Your task to perform on an android device: open app "Pluto TV - Live TV and Movies" Image 0: 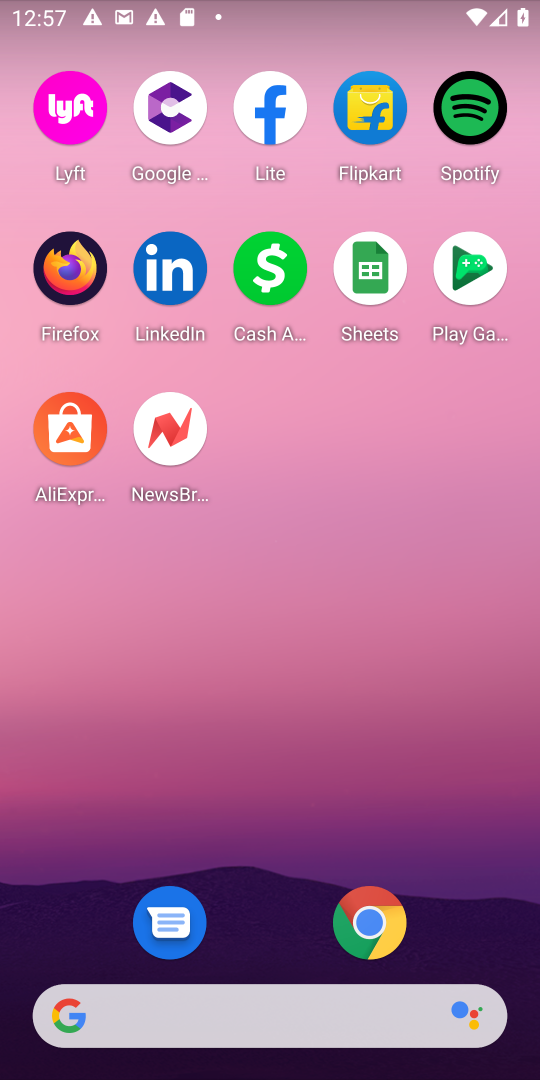
Step 0: drag from (247, 758) to (336, 65)
Your task to perform on an android device: open app "Pluto TV - Live TV and Movies" Image 1: 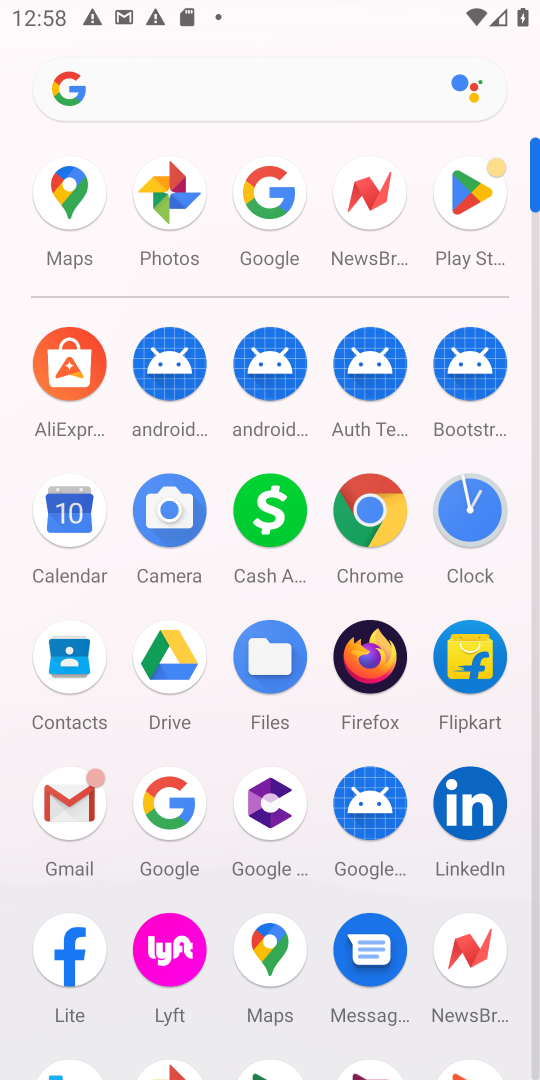
Step 1: click (458, 193)
Your task to perform on an android device: open app "Pluto TV - Live TV and Movies" Image 2: 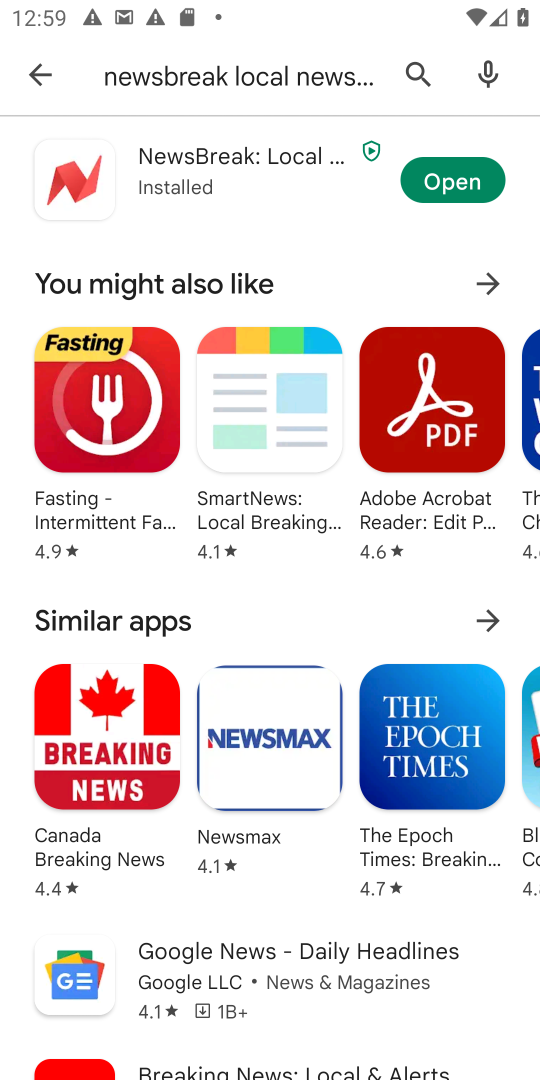
Step 2: click (43, 73)
Your task to perform on an android device: open app "Pluto TV - Live TV and Movies" Image 3: 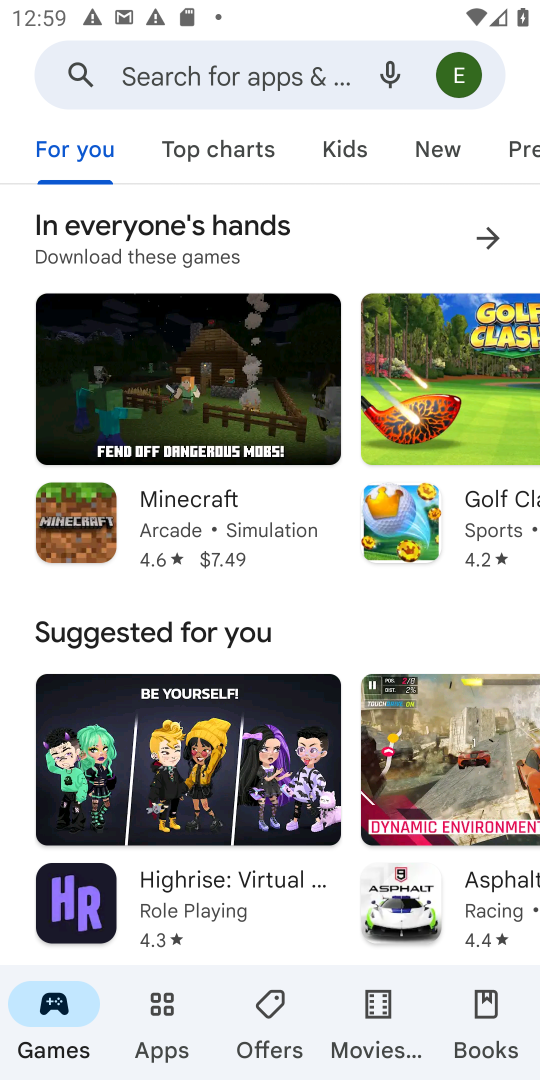
Step 3: click (224, 84)
Your task to perform on an android device: open app "Pluto TV - Live TV and Movies" Image 4: 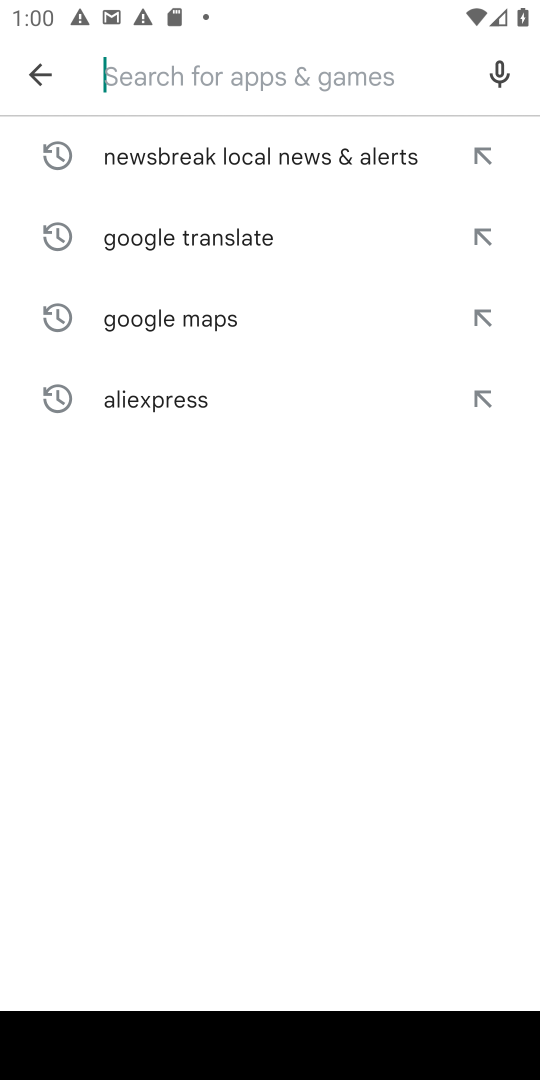
Step 4: type "Pluto TV"
Your task to perform on an android device: open app "Pluto TV - Live TV and Movies" Image 5: 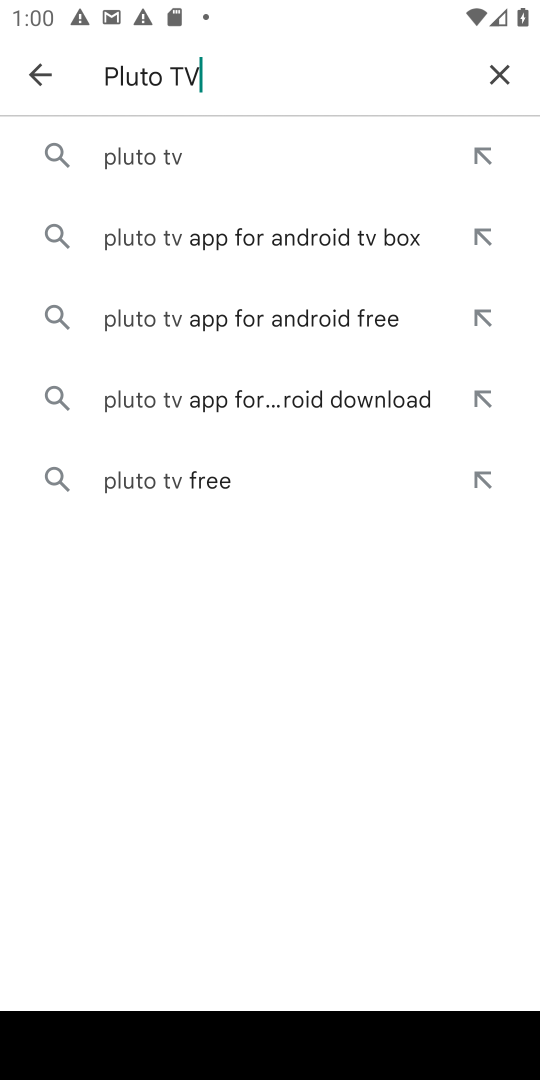
Step 5: click (113, 156)
Your task to perform on an android device: open app "Pluto TV - Live TV and Movies" Image 6: 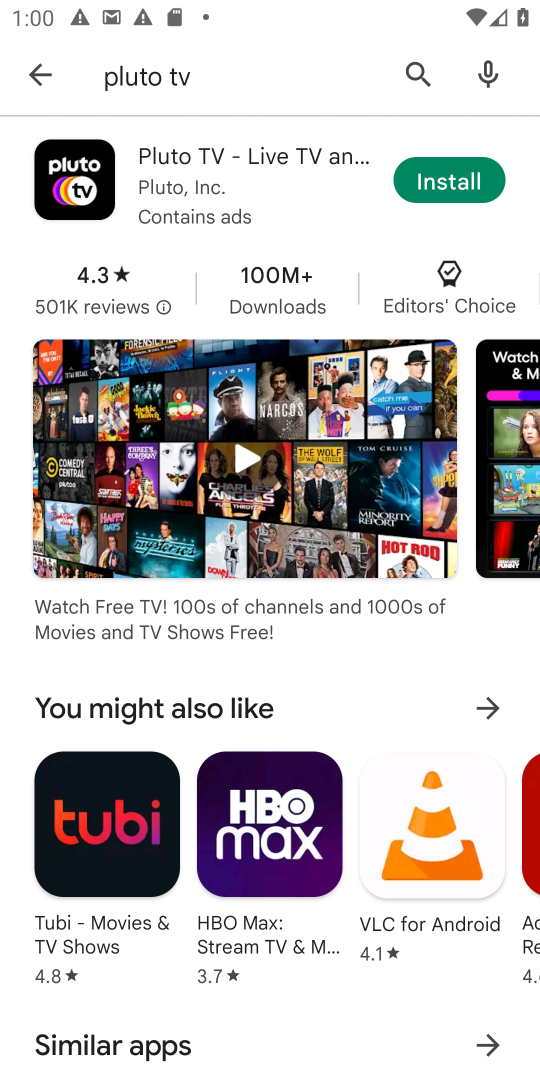
Step 6: click (438, 177)
Your task to perform on an android device: open app "Pluto TV - Live TV and Movies" Image 7: 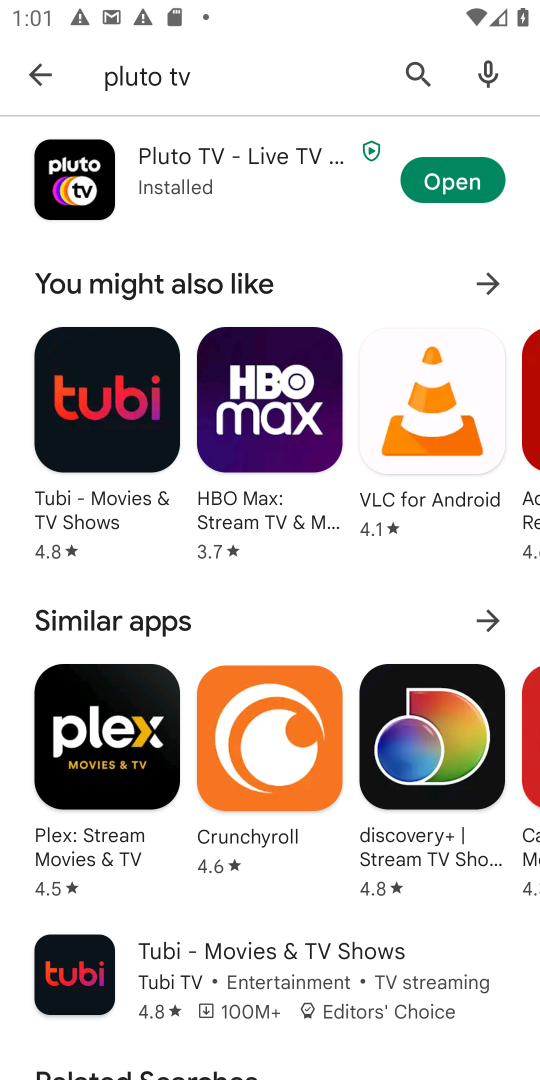
Step 7: click (438, 177)
Your task to perform on an android device: open app "Pluto TV - Live TV and Movies" Image 8: 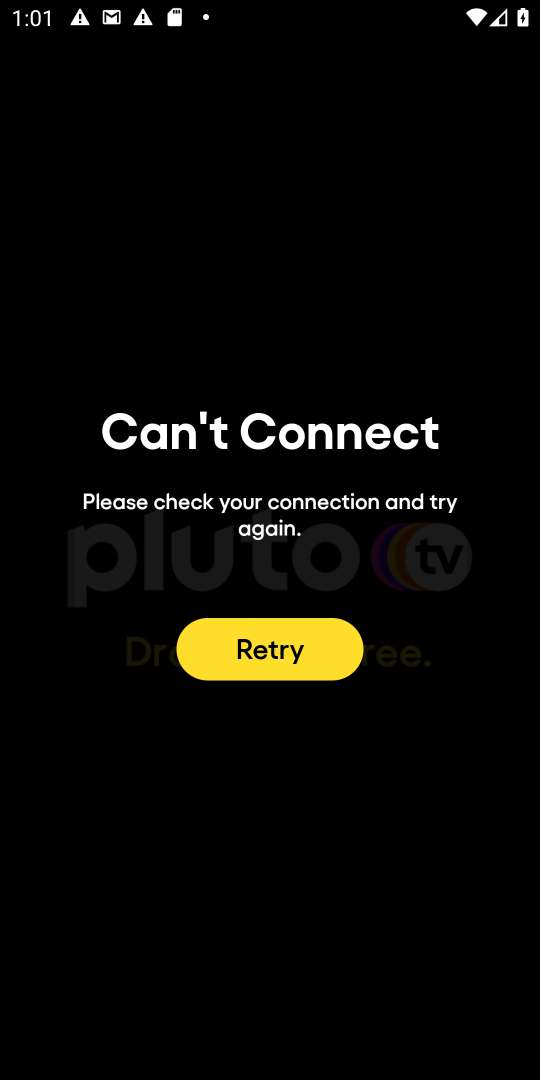
Step 8: click (243, 664)
Your task to perform on an android device: open app "Pluto TV - Live TV and Movies" Image 9: 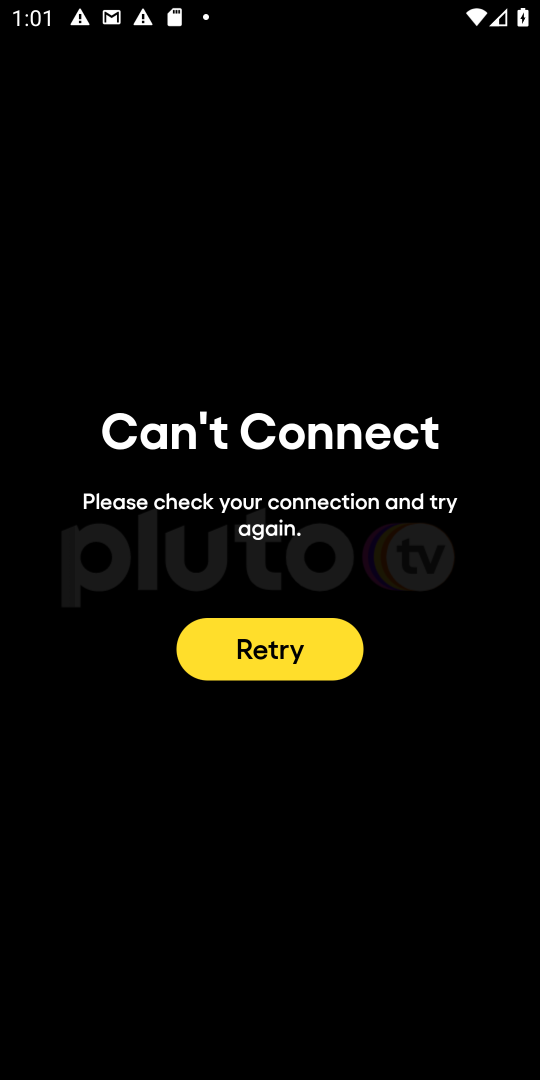
Step 9: task complete